Your task to perform on an android device: change the clock display to show seconds Image 0: 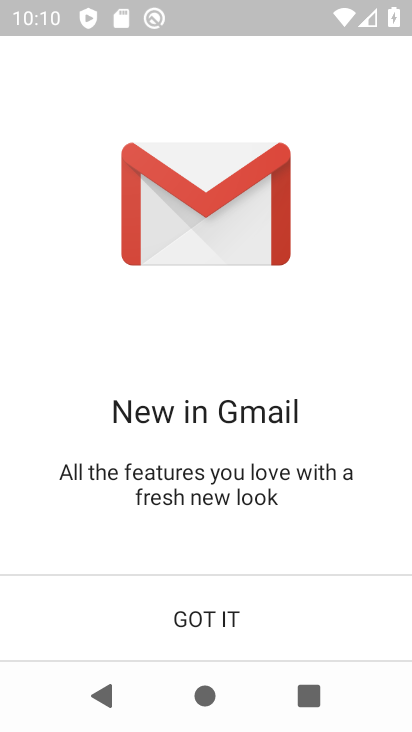
Step 0: drag from (295, 334) to (287, 160)
Your task to perform on an android device: change the clock display to show seconds Image 1: 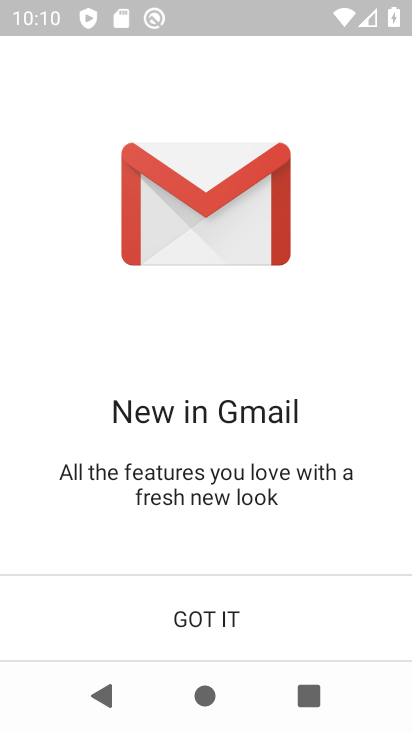
Step 1: click (210, 630)
Your task to perform on an android device: change the clock display to show seconds Image 2: 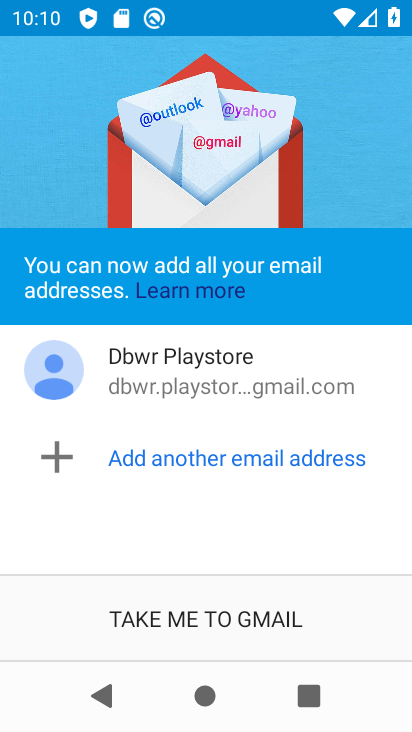
Step 2: click (210, 630)
Your task to perform on an android device: change the clock display to show seconds Image 3: 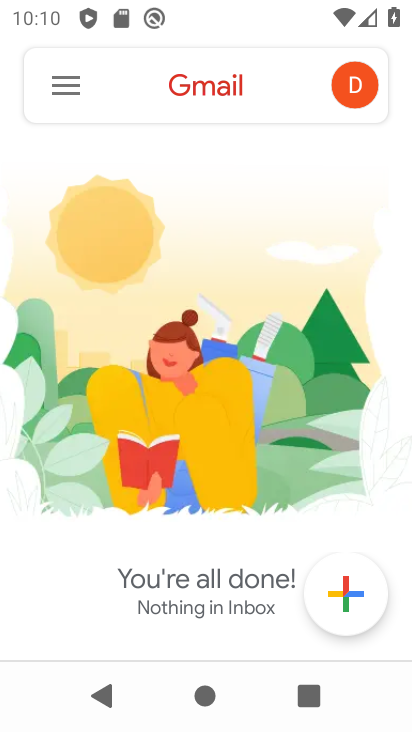
Step 3: press home button
Your task to perform on an android device: change the clock display to show seconds Image 4: 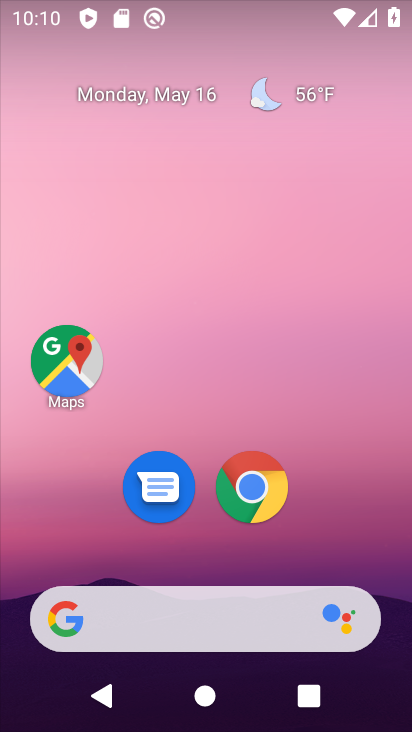
Step 4: drag from (296, 558) to (289, 238)
Your task to perform on an android device: change the clock display to show seconds Image 5: 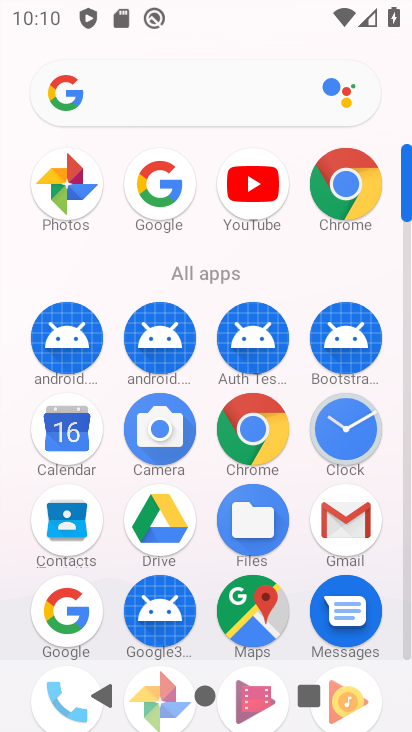
Step 5: click (349, 434)
Your task to perform on an android device: change the clock display to show seconds Image 6: 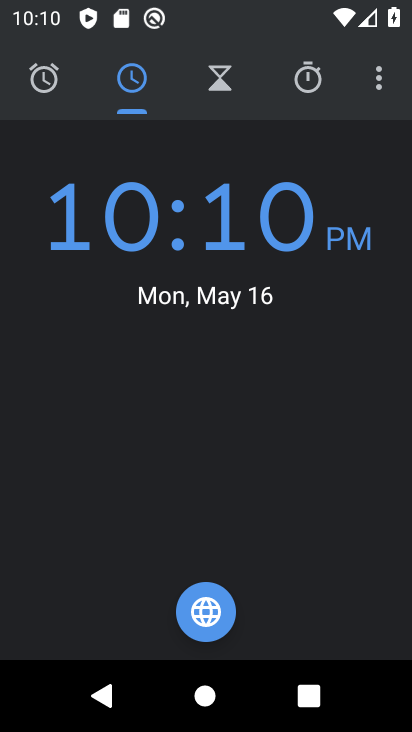
Step 6: click (379, 79)
Your task to perform on an android device: change the clock display to show seconds Image 7: 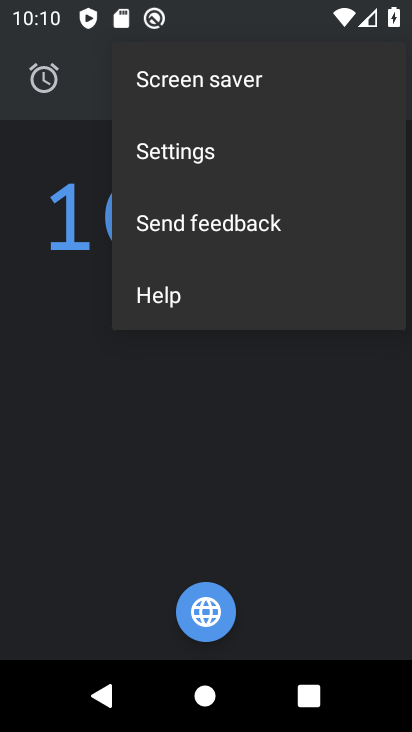
Step 7: click (214, 160)
Your task to perform on an android device: change the clock display to show seconds Image 8: 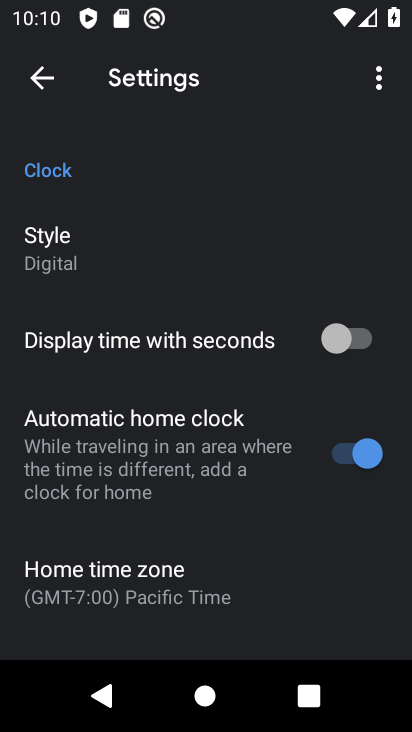
Step 8: click (371, 345)
Your task to perform on an android device: change the clock display to show seconds Image 9: 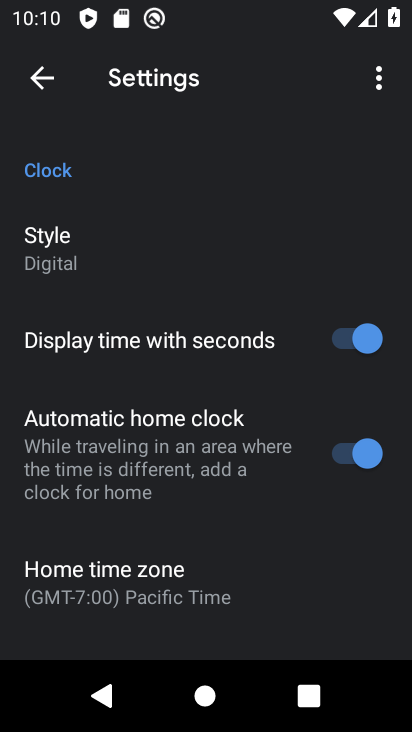
Step 9: task complete